Your task to perform on an android device: Is it going to rain today? Image 0: 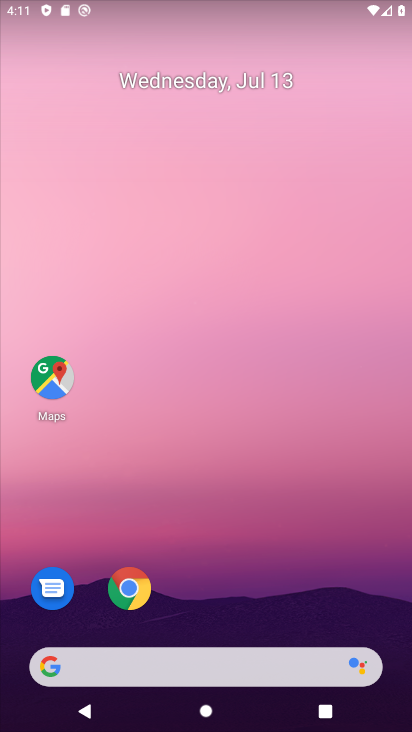
Step 0: drag from (190, 591) to (256, 112)
Your task to perform on an android device: Is it going to rain today? Image 1: 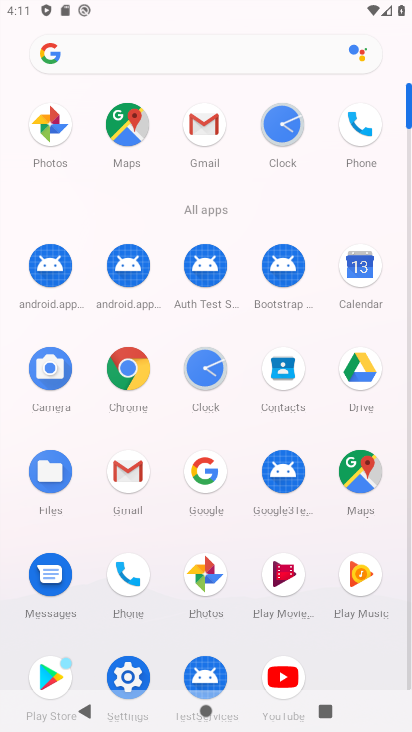
Step 1: click (201, 479)
Your task to perform on an android device: Is it going to rain today? Image 2: 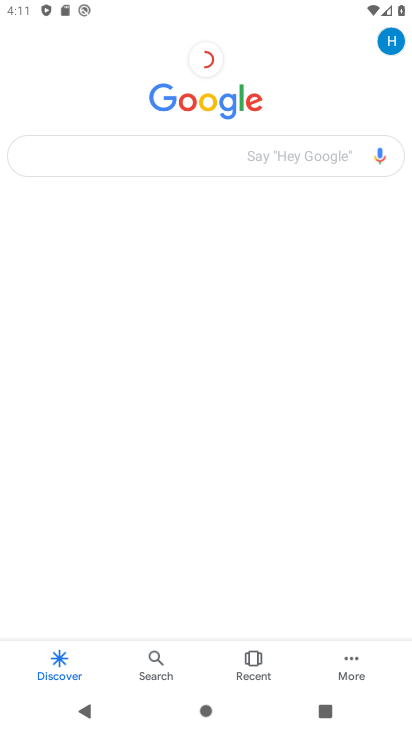
Step 2: click (187, 164)
Your task to perform on an android device: Is it going to rain today? Image 3: 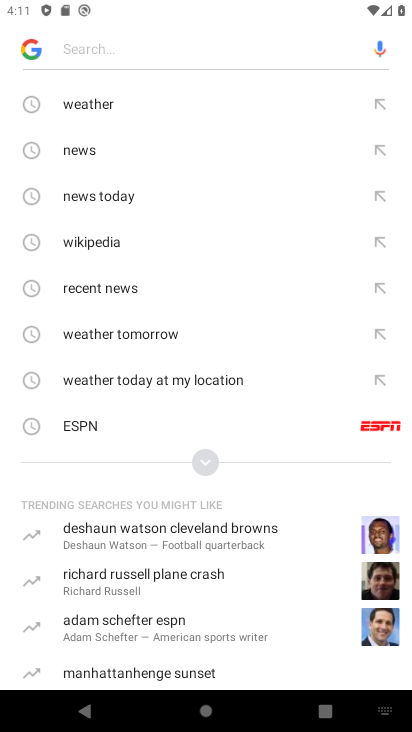
Step 3: type "Is it going to rain today?"
Your task to perform on an android device: Is it going to rain today? Image 4: 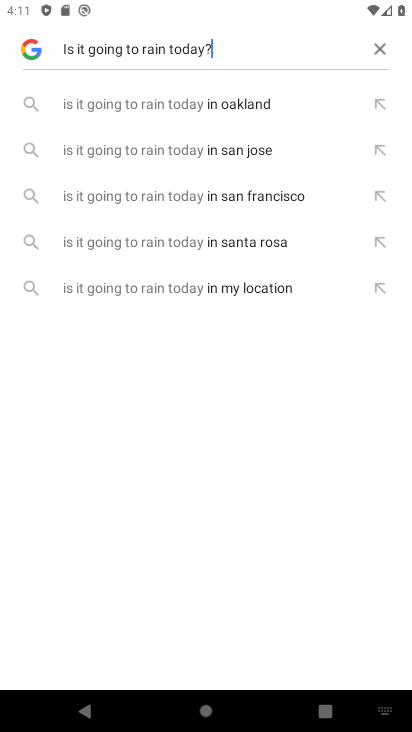
Step 4: press enter
Your task to perform on an android device: Is it going to rain today? Image 5: 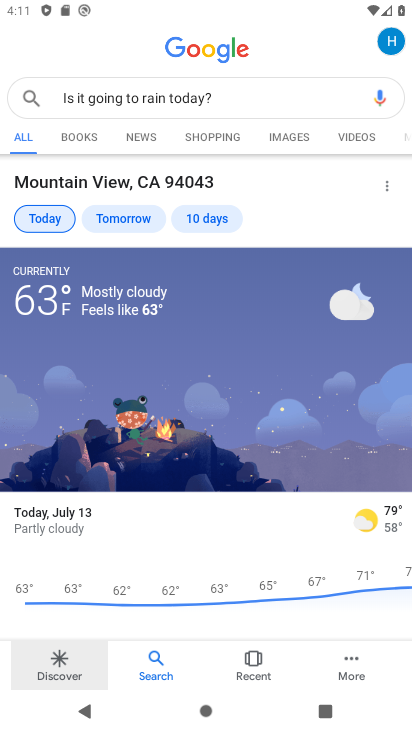
Step 5: task complete